Your task to perform on an android device: Turn off the flashlight Image 0: 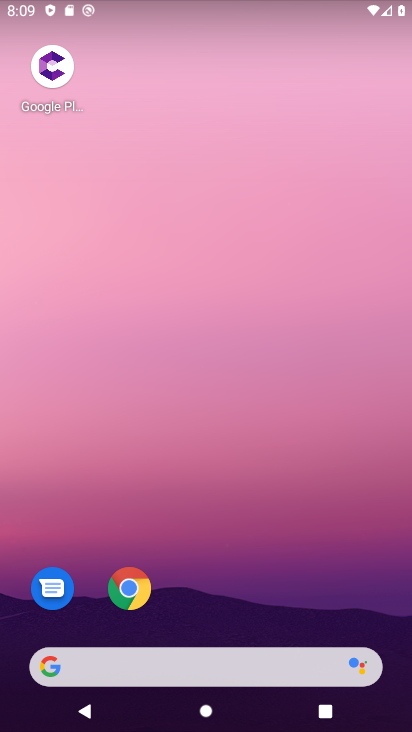
Step 0: drag from (290, 576) to (280, 170)
Your task to perform on an android device: Turn off the flashlight Image 1: 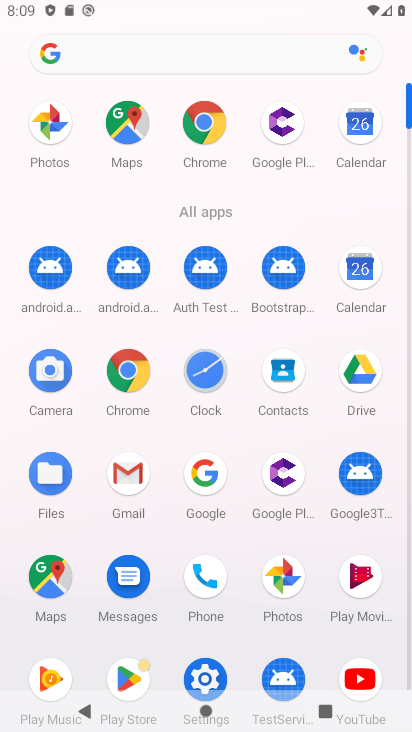
Step 1: click (207, 673)
Your task to perform on an android device: Turn off the flashlight Image 2: 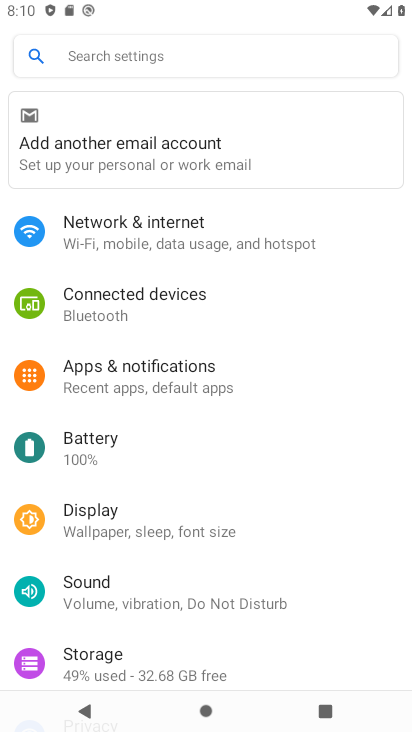
Step 2: task complete